Your task to perform on an android device: Add usb-c to usb-b to the cart on bestbuy.com, then select checkout. Image 0: 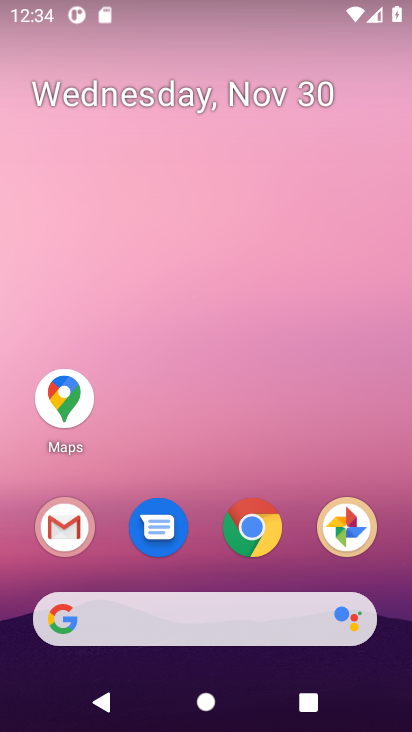
Step 0: click (189, 610)
Your task to perform on an android device: Add usb-c to usb-b to the cart on bestbuy.com, then select checkout. Image 1: 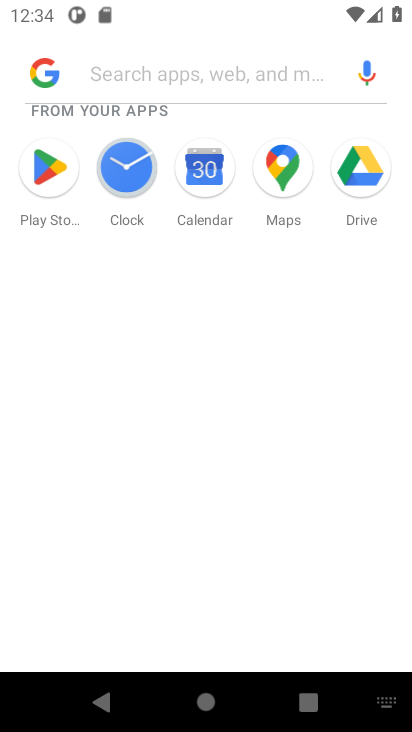
Step 1: press home button
Your task to perform on an android device: Add usb-c to usb-b to the cart on bestbuy.com, then select checkout. Image 2: 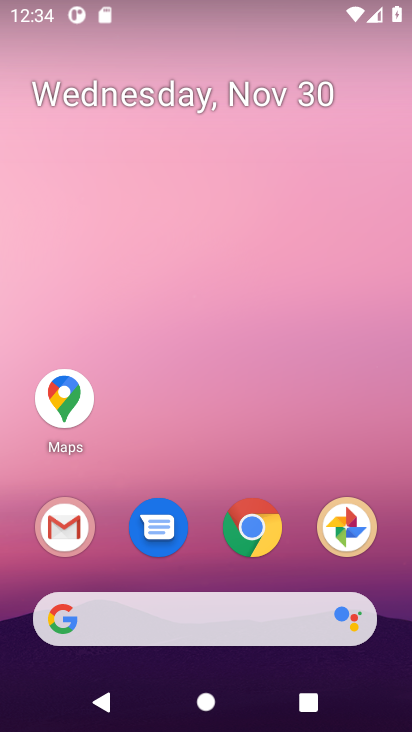
Step 2: click (242, 548)
Your task to perform on an android device: Add usb-c to usb-b to the cart on bestbuy.com, then select checkout. Image 3: 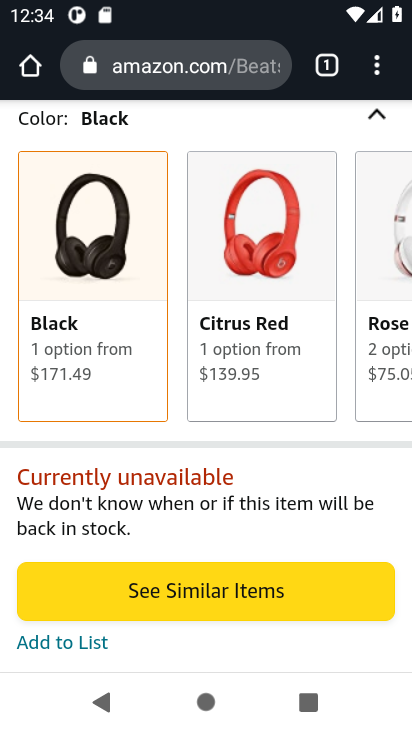
Step 3: drag from (209, 129) to (275, 509)
Your task to perform on an android device: Add usb-c to usb-b to the cart on bestbuy.com, then select checkout. Image 4: 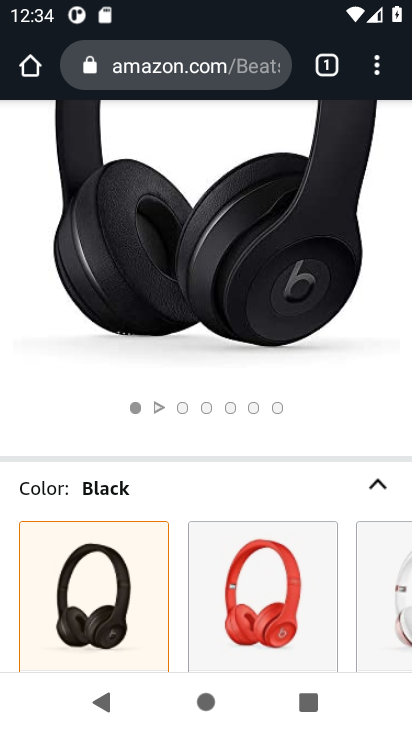
Step 4: drag from (299, 309) to (348, 696)
Your task to perform on an android device: Add usb-c to usb-b to the cart on bestbuy.com, then select checkout. Image 5: 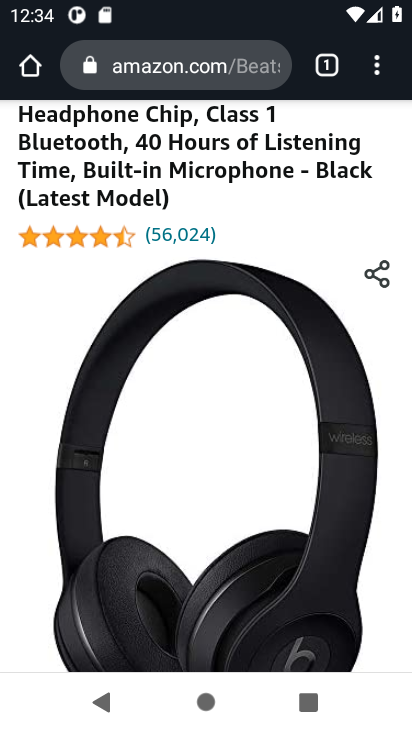
Step 5: drag from (266, 218) to (361, 465)
Your task to perform on an android device: Add usb-c to usb-b to the cart on bestbuy.com, then select checkout. Image 6: 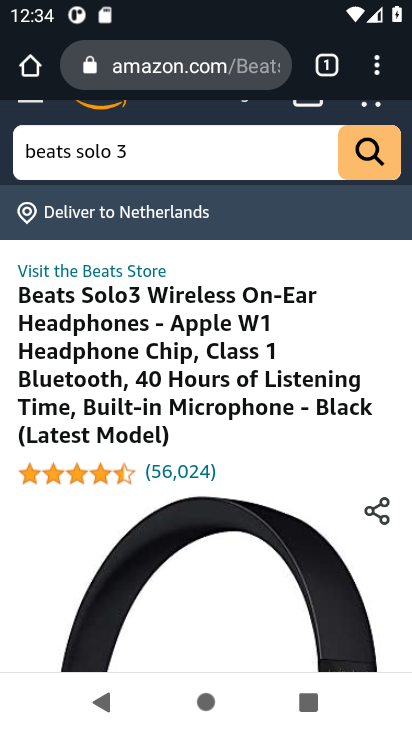
Step 6: click (241, 141)
Your task to perform on an android device: Add usb-c to usb-b to the cart on bestbuy.com, then select checkout. Image 7: 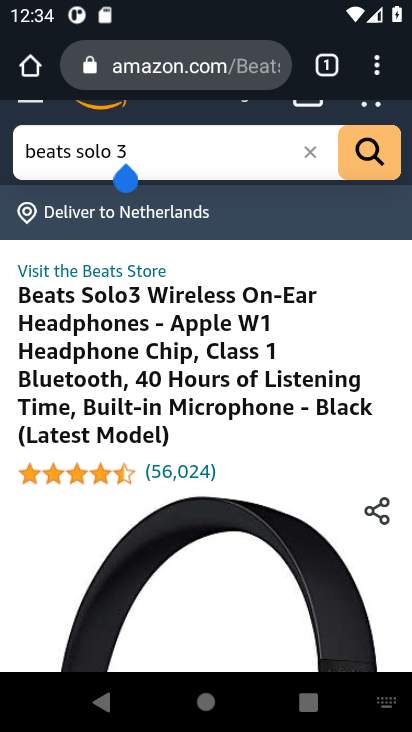
Step 7: click (303, 160)
Your task to perform on an android device: Add usb-c to usb-b to the cart on bestbuy.com, then select checkout. Image 8: 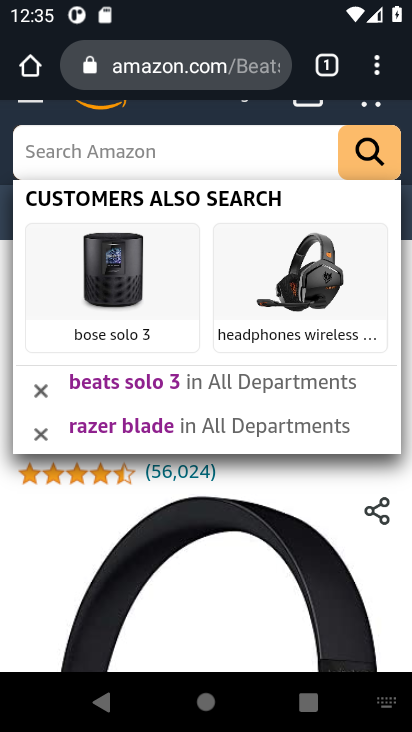
Step 8: click (178, 78)
Your task to perform on an android device: Add usb-c to usb-b to the cart on bestbuy.com, then select checkout. Image 9: 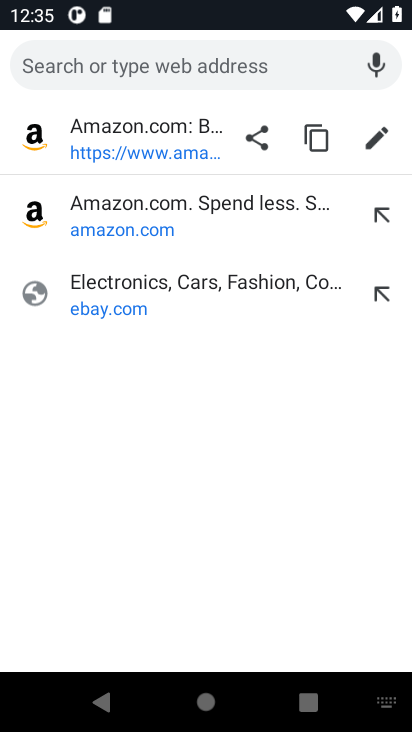
Step 9: type "bestbuy"
Your task to perform on an android device: Add usb-c to usb-b to the cart on bestbuy.com, then select checkout. Image 10: 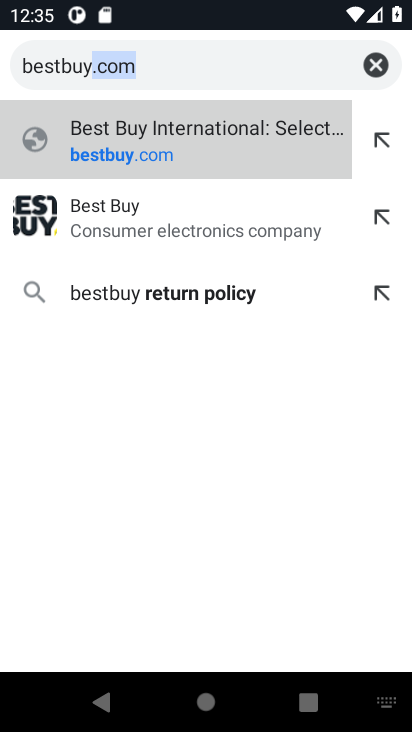
Step 10: click (191, 152)
Your task to perform on an android device: Add usb-c to usb-b to the cart on bestbuy.com, then select checkout. Image 11: 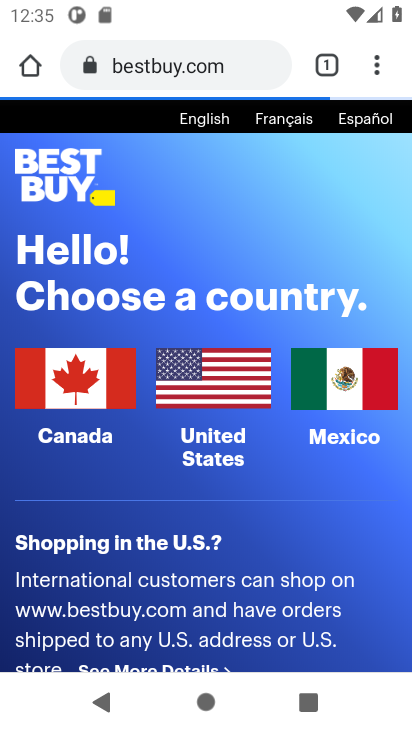
Step 11: click (46, 396)
Your task to perform on an android device: Add usb-c to usb-b to the cart on bestbuy.com, then select checkout. Image 12: 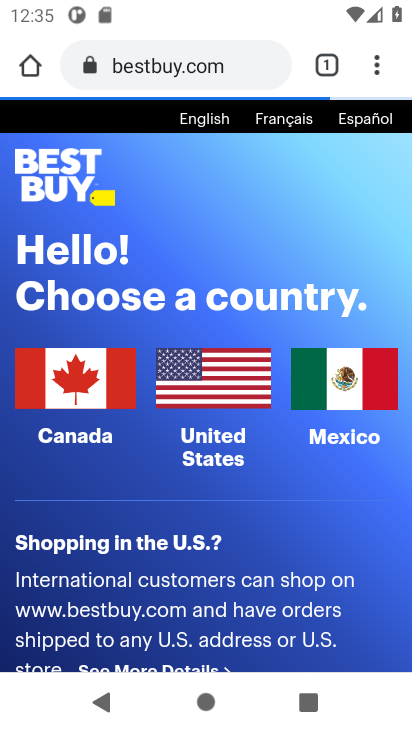
Step 12: click (97, 402)
Your task to perform on an android device: Add usb-c to usb-b to the cart on bestbuy.com, then select checkout. Image 13: 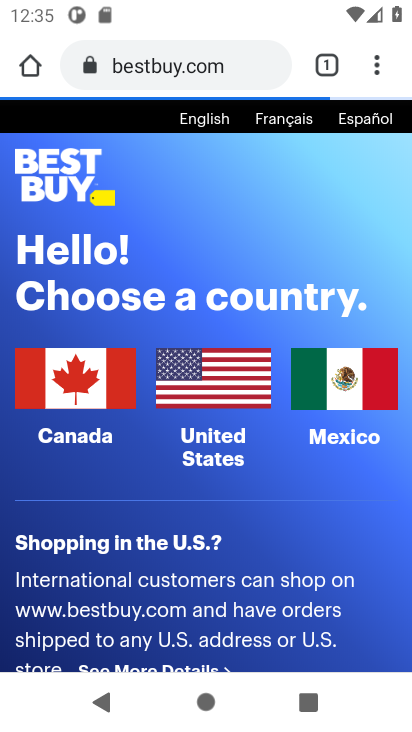
Step 13: click (83, 402)
Your task to perform on an android device: Add usb-c to usb-b to the cart on bestbuy.com, then select checkout. Image 14: 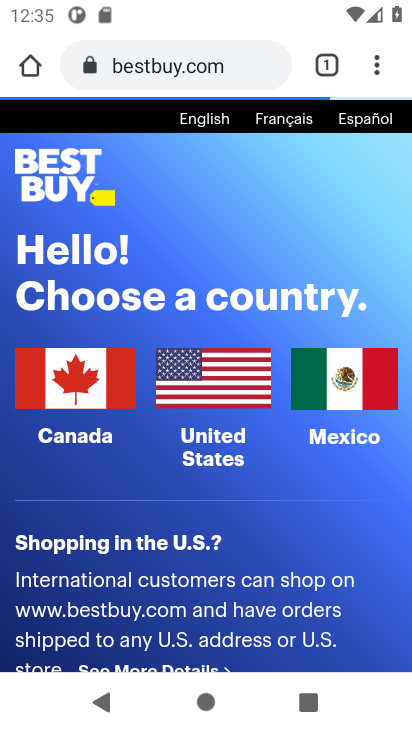
Step 14: click (206, 403)
Your task to perform on an android device: Add usb-c to usb-b to the cart on bestbuy.com, then select checkout. Image 15: 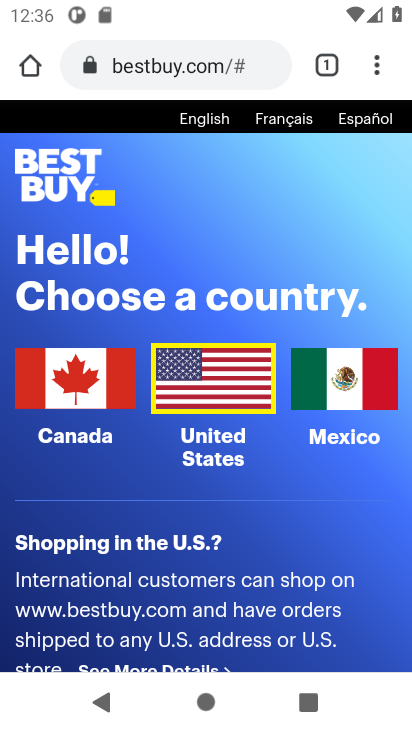
Step 15: click (165, 398)
Your task to perform on an android device: Add usb-c to usb-b to the cart on bestbuy.com, then select checkout. Image 16: 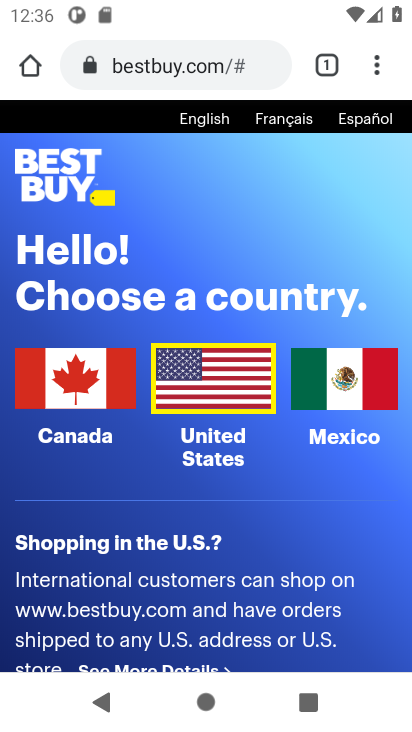
Step 16: click (216, 401)
Your task to perform on an android device: Add usb-c to usb-b to the cart on bestbuy.com, then select checkout. Image 17: 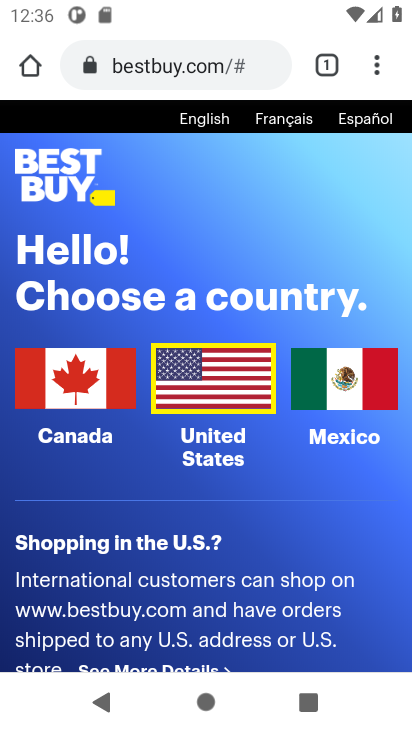
Step 17: click (216, 401)
Your task to perform on an android device: Add usb-c to usb-b to the cart on bestbuy.com, then select checkout. Image 18: 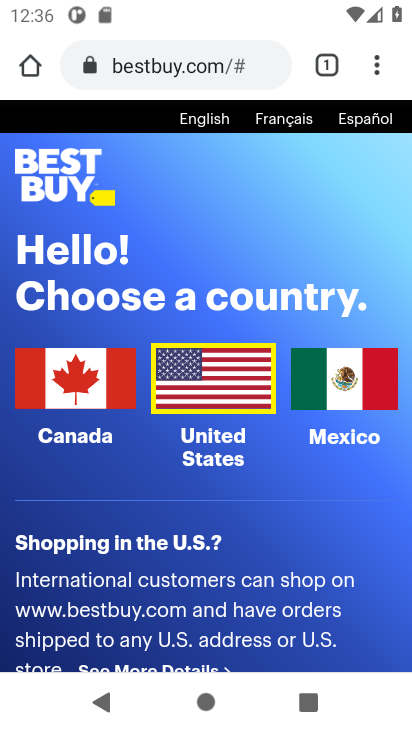
Step 18: click (216, 401)
Your task to perform on an android device: Add usb-c to usb-b to the cart on bestbuy.com, then select checkout. Image 19: 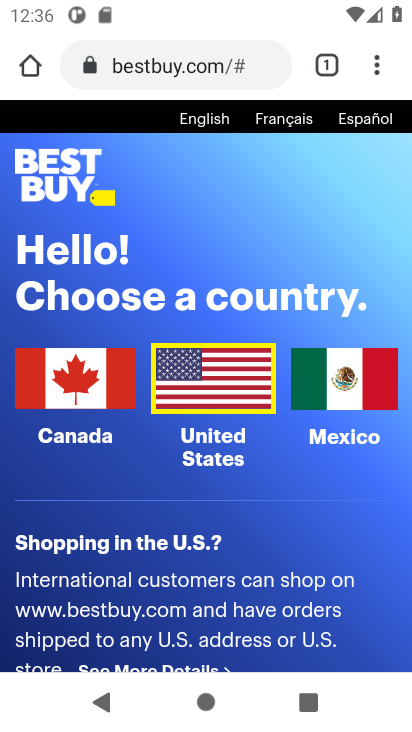
Step 19: click (216, 401)
Your task to perform on an android device: Add usb-c to usb-b to the cart on bestbuy.com, then select checkout. Image 20: 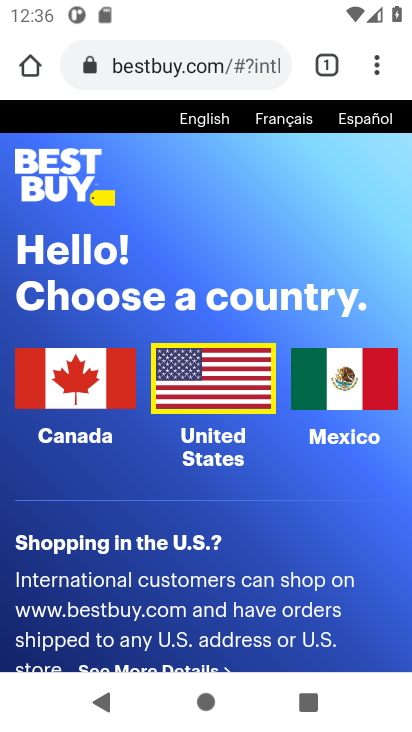
Step 20: click (209, 406)
Your task to perform on an android device: Add usb-c to usb-b to the cart on bestbuy.com, then select checkout. Image 21: 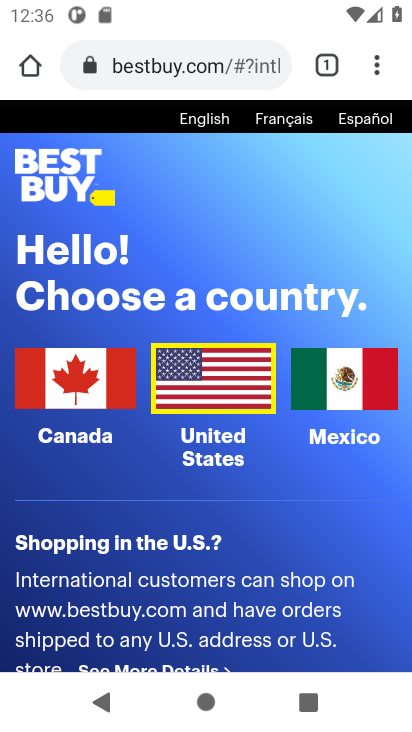
Step 21: click (67, 380)
Your task to perform on an android device: Add usb-c to usb-b to the cart on bestbuy.com, then select checkout. Image 22: 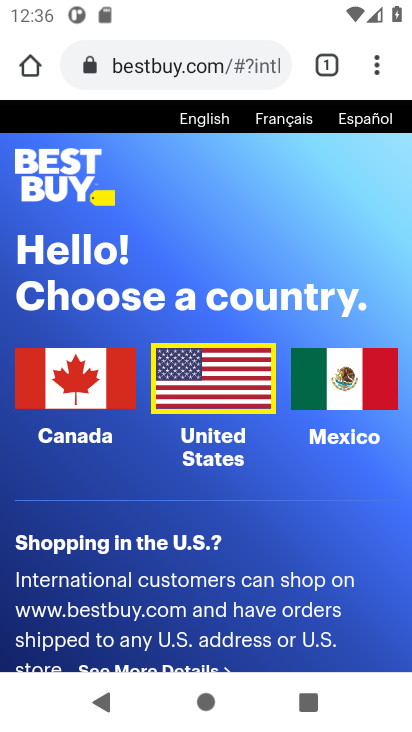
Step 22: click (67, 380)
Your task to perform on an android device: Add usb-c to usb-b to the cart on bestbuy.com, then select checkout. Image 23: 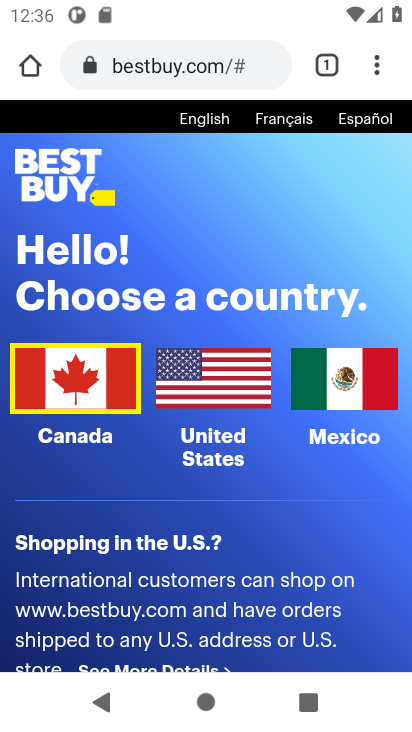
Step 23: task complete